Your task to perform on an android device: turn on notifications settings in the gmail app Image 0: 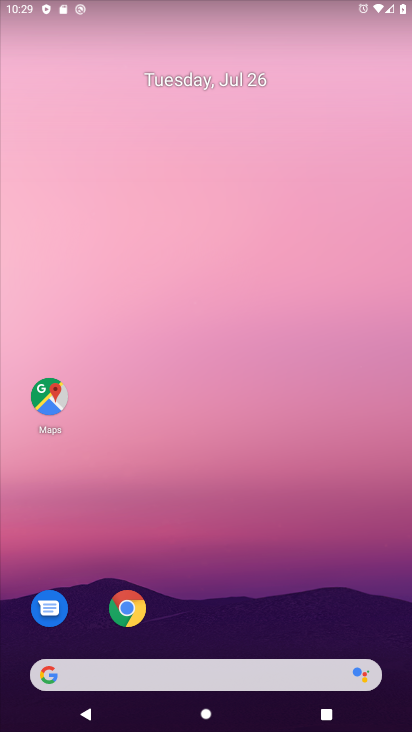
Step 0: drag from (259, 722) to (303, 89)
Your task to perform on an android device: turn on notifications settings in the gmail app Image 1: 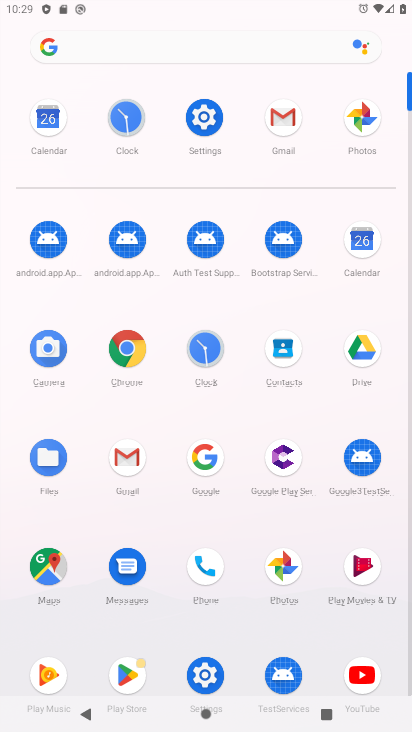
Step 1: click (120, 456)
Your task to perform on an android device: turn on notifications settings in the gmail app Image 2: 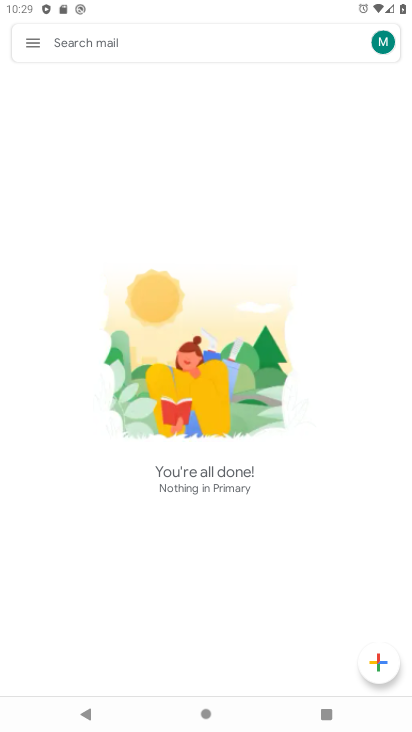
Step 2: click (30, 44)
Your task to perform on an android device: turn on notifications settings in the gmail app Image 3: 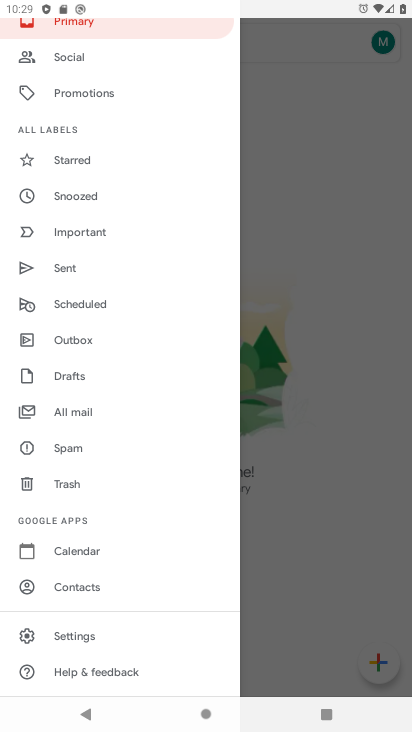
Step 3: click (77, 636)
Your task to perform on an android device: turn on notifications settings in the gmail app Image 4: 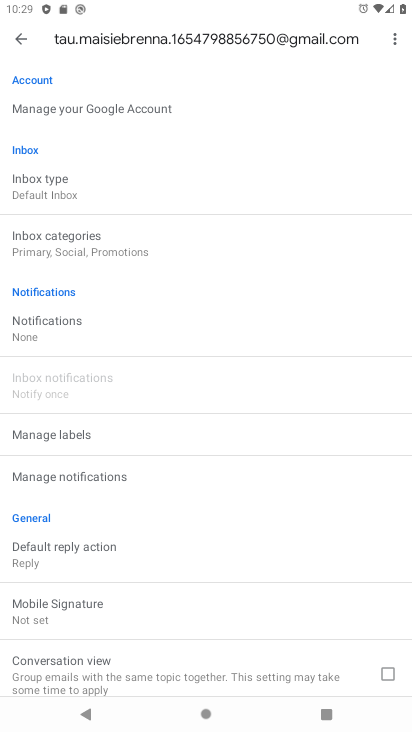
Step 4: click (28, 324)
Your task to perform on an android device: turn on notifications settings in the gmail app Image 5: 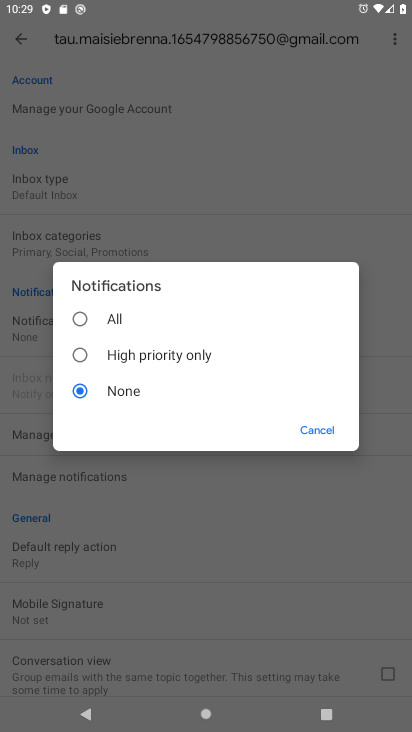
Step 5: click (74, 319)
Your task to perform on an android device: turn on notifications settings in the gmail app Image 6: 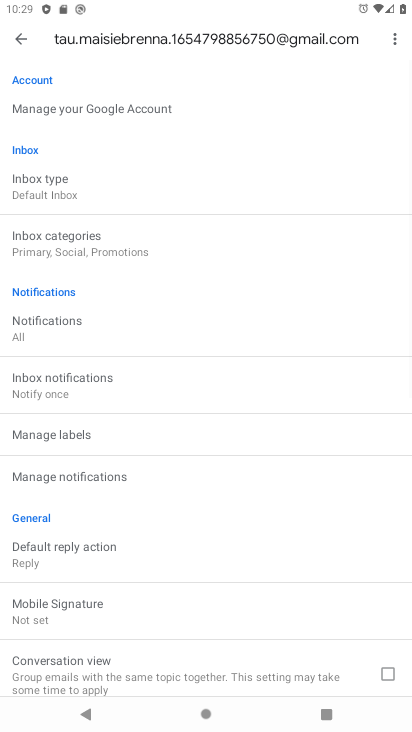
Step 6: task complete